Your task to perform on an android device: Show me popular games on the Play Store Image 0: 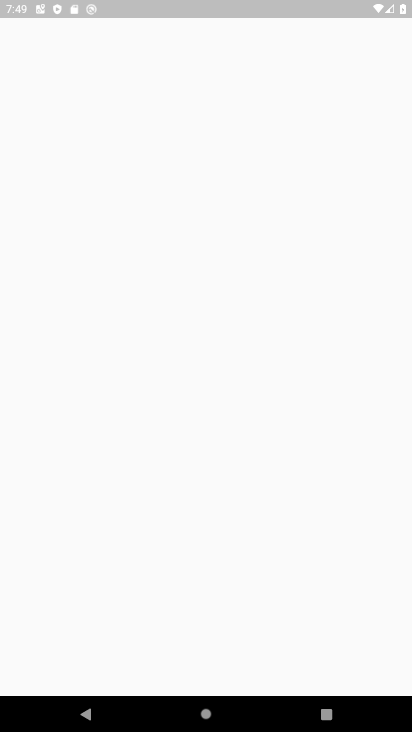
Step 0: drag from (206, 573) to (183, 271)
Your task to perform on an android device: Show me popular games on the Play Store Image 1: 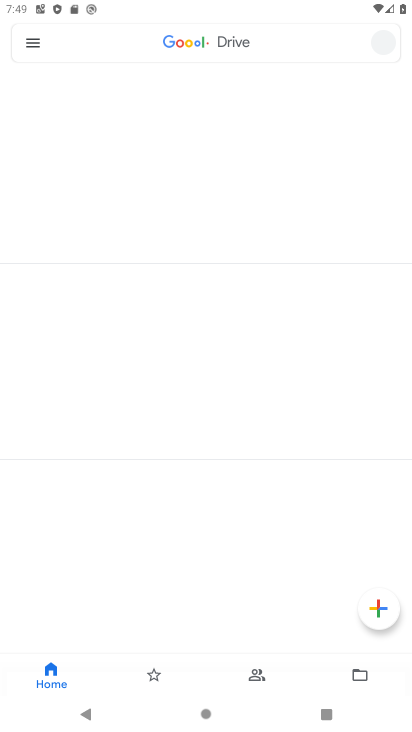
Step 1: press home button
Your task to perform on an android device: Show me popular games on the Play Store Image 2: 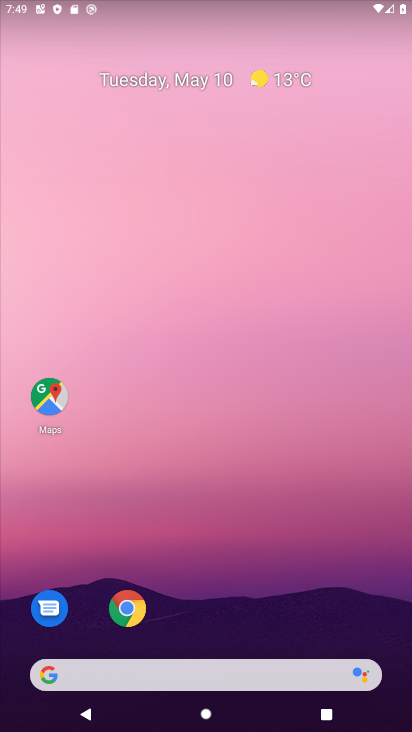
Step 2: drag from (222, 586) to (180, 76)
Your task to perform on an android device: Show me popular games on the Play Store Image 3: 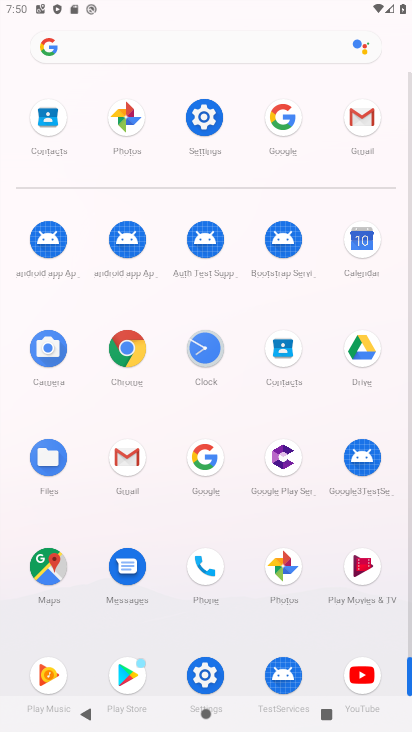
Step 3: click (204, 151)
Your task to perform on an android device: Show me popular games on the Play Store Image 4: 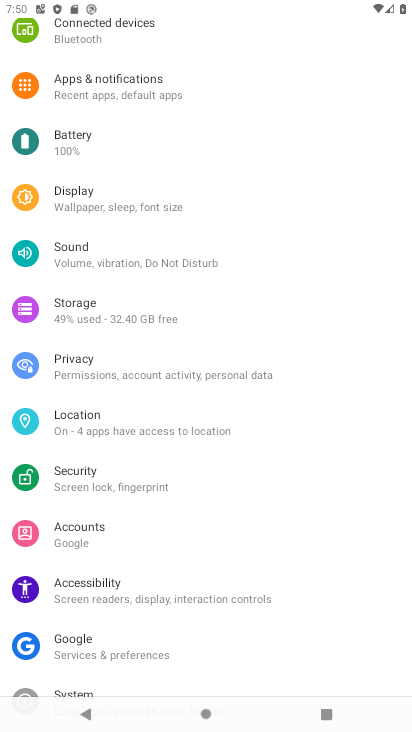
Step 4: drag from (152, 169) to (150, 391)
Your task to perform on an android device: Show me popular games on the Play Store Image 5: 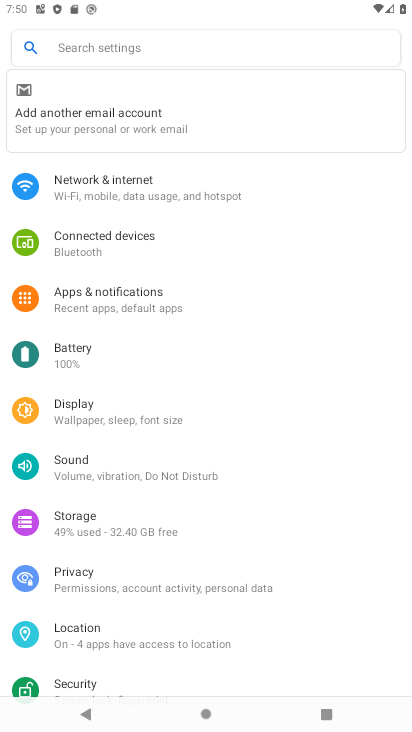
Step 5: click (87, 361)
Your task to perform on an android device: Show me popular games on the Play Store Image 6: 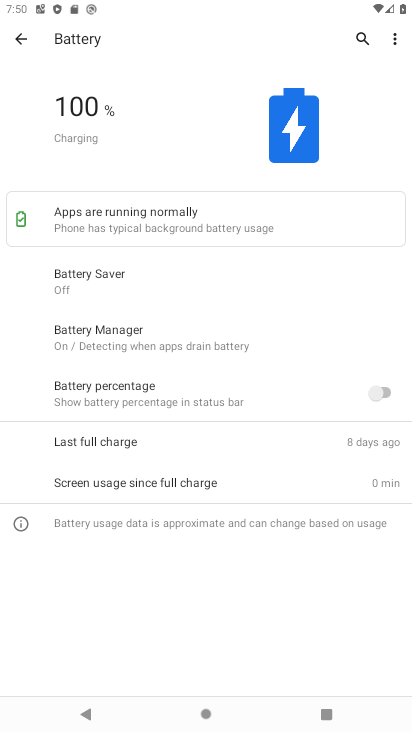
Step 6: task complete